Your task to perform on an android device: Go to ESPN.com Image 0: 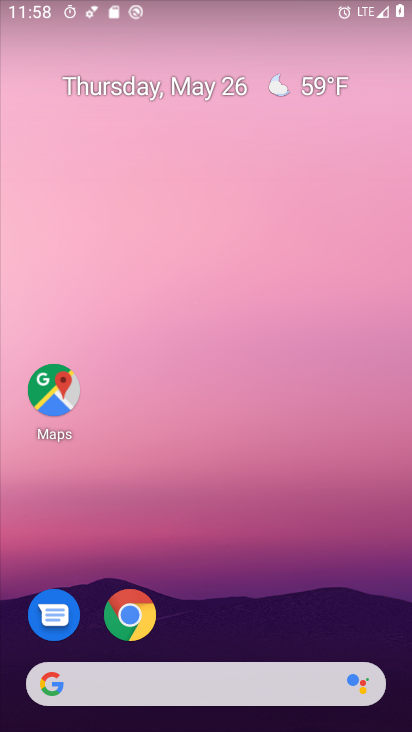
Step 0: drag from (271, 613) to (108, 180)
Your task to perform on an android device: Go to ESPN.com Image 1: 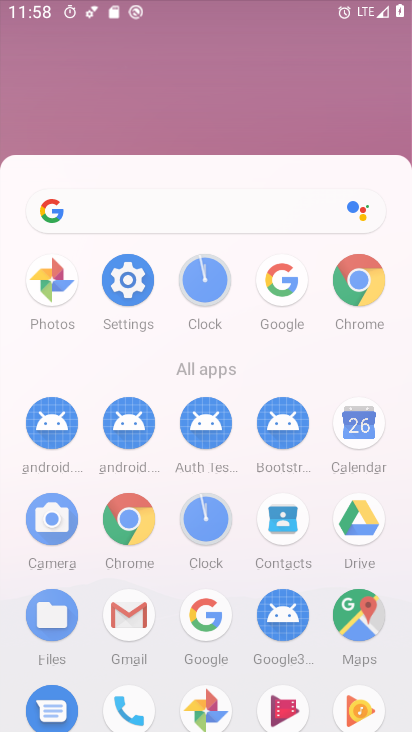
Step 1: drag from (198, 459) to (198, 18)
Your task to perform on an android device: Go to ESPN.com Image 2: 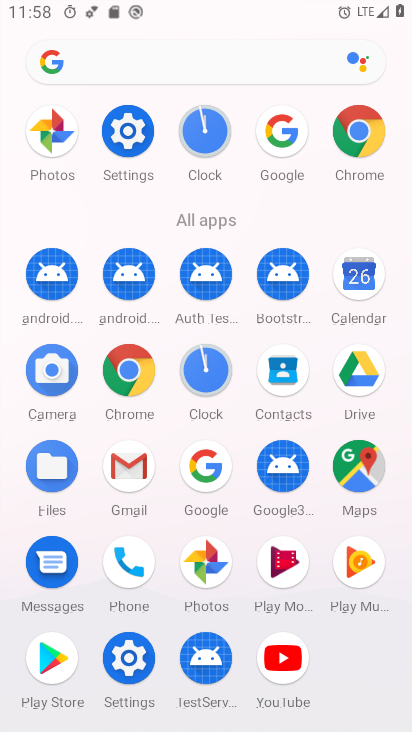
Step 2: click (354, 117)
Your task to perform on an android device: Go to ESPN.com Image 3: 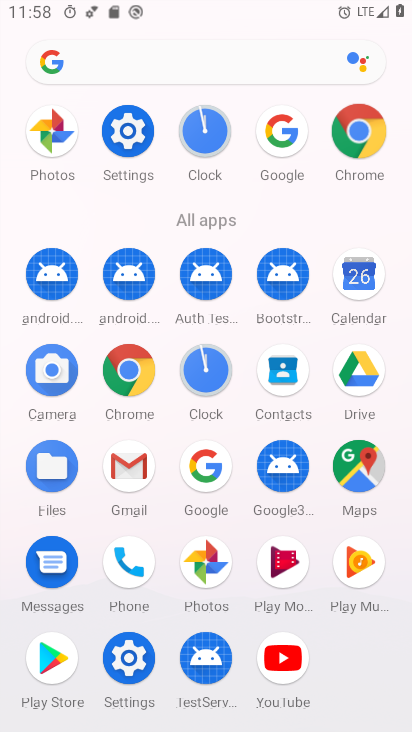
Step 3: click (354, 117)
Your task to perform on an android device: Go to ESPN.com Image 4: 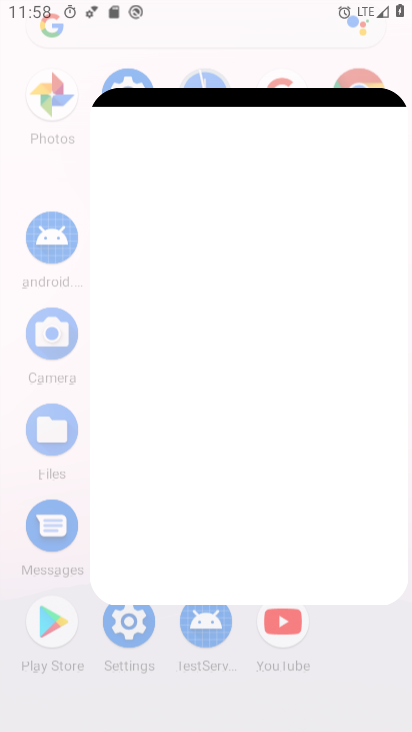
Step 4: click (353, 126)
Your task to perform on an android device: Go to ESPN.com Image 5: 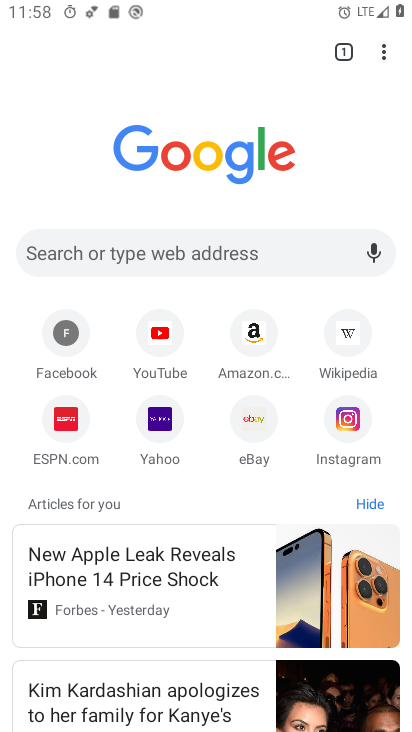
Step 5: click (68, 426)
Your task to perform on an android device: Go to ESPN.com Image 6: 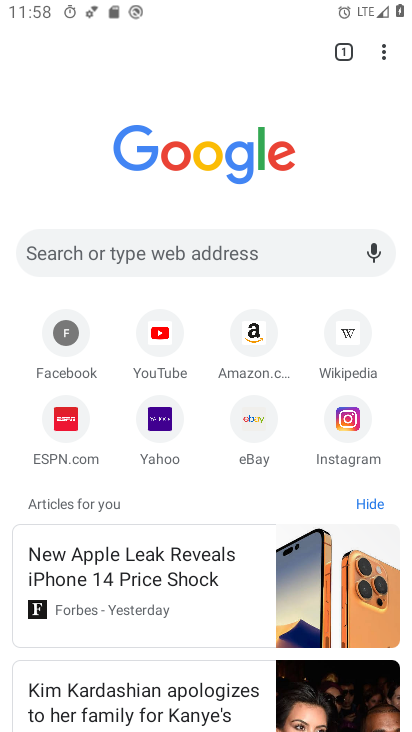
Step 6: click (68, 426)
Your task to perform on an android device: Go to ESPN.com Image 7: 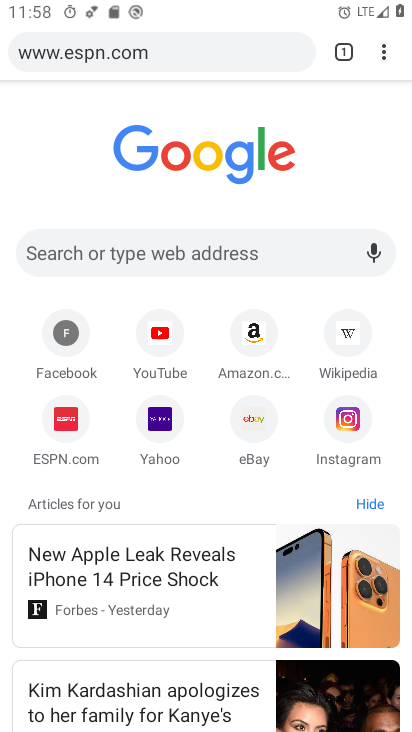
Step 7: click (68, 426)
Your task to perform on an android device: Go to ESPN.com Image 8: 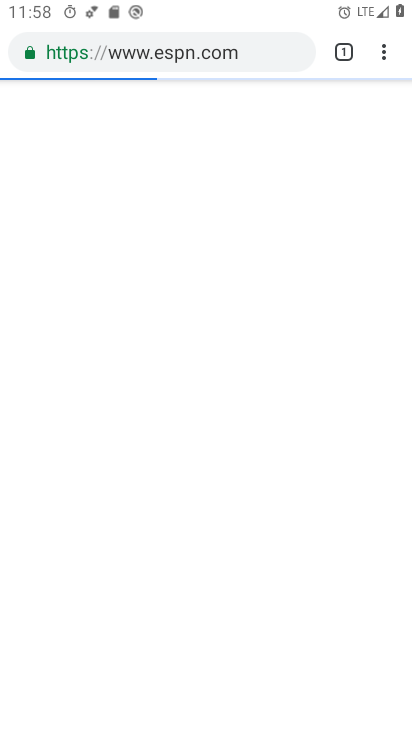
Step 8: click (67, 403)
Your task to perform on an android device: Go to ESPN.com Image 9: 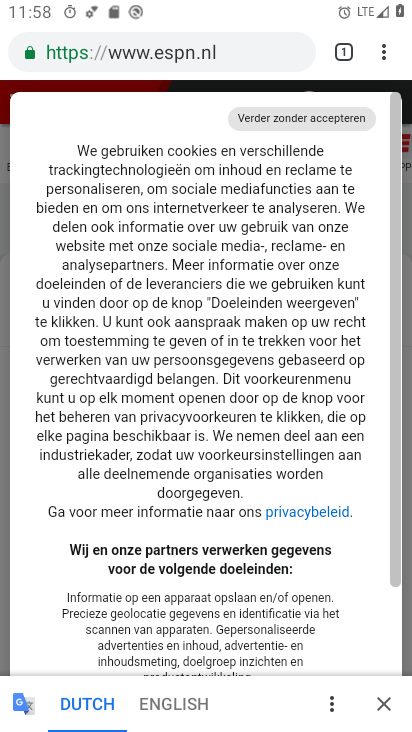
Step 9: task complete